Your task to perform on an android device: turn off javascript in the chrome app Image 0: 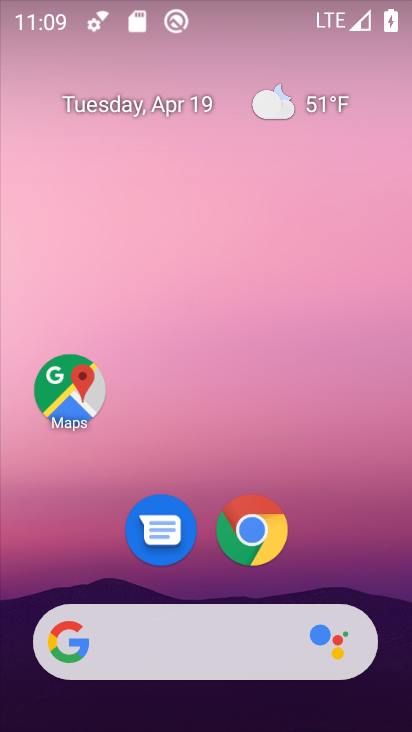
Step 0: drag from (147, 631) to (283, 117)
Your task to perform on an android device: turn off javascript in the chrome app Image 1: 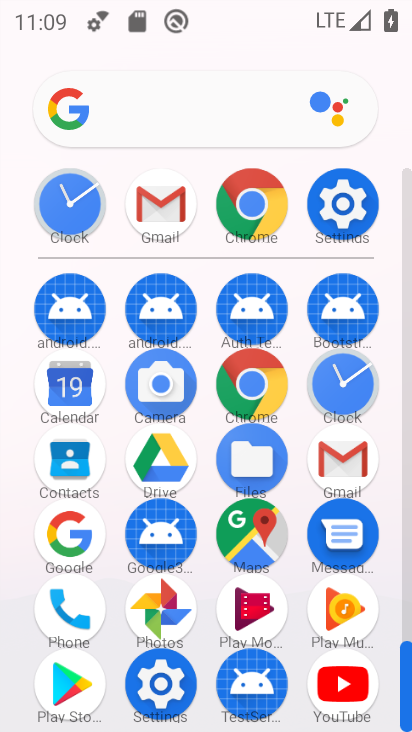
Step 1: click (249, 201)
Your task to perform on an android device: turn off javascript in the chrome app Image 2: 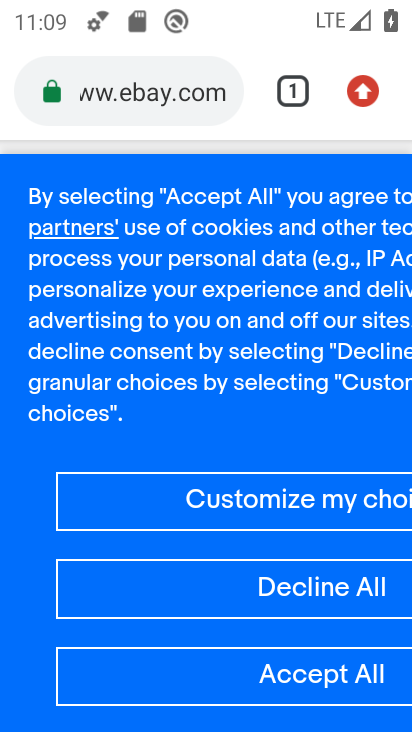
Step 2: click (373, 107)
Your task to perform on an android device: turn off javascript in the chrome app Image 3: 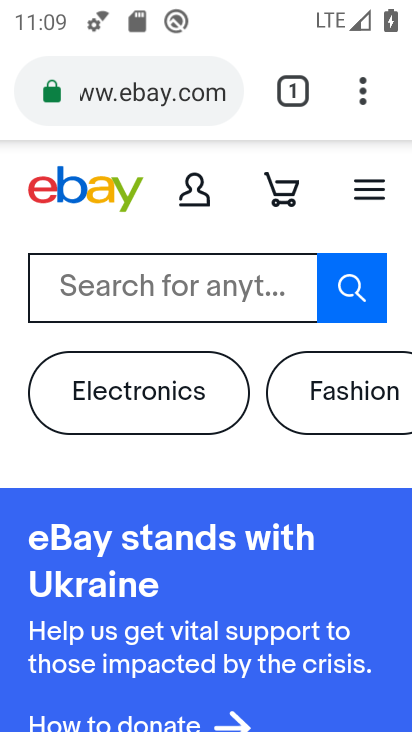
Step 3: click (361, 94)
Your task to perform on an android device: turn off javascript in the chrome app Image 4: 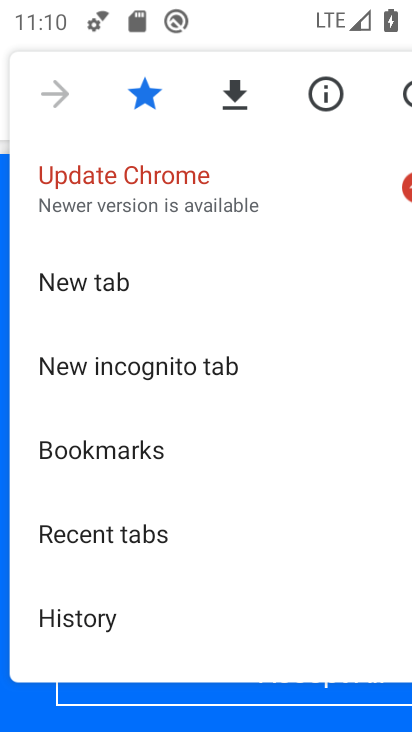
Step 4: drag from (141, 571) to (347, 54)
Your task to perform on an android device: turn off javascript in the chrome app Image 5: 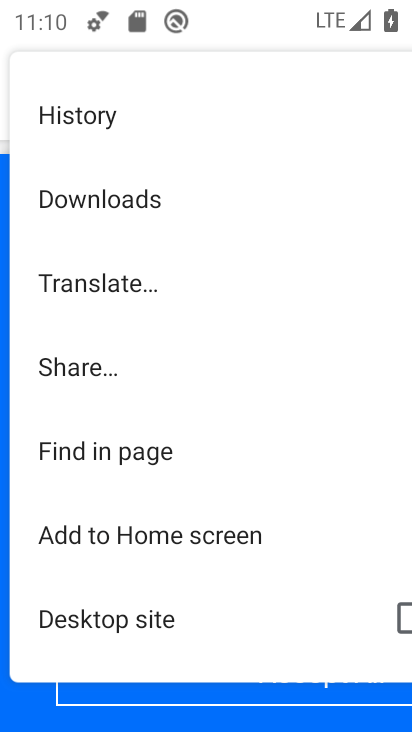
Step 5: drag from (193, 565) to (340, 152)
Your task to perform on an android device: turn off javascript in the chrome app Image 6: 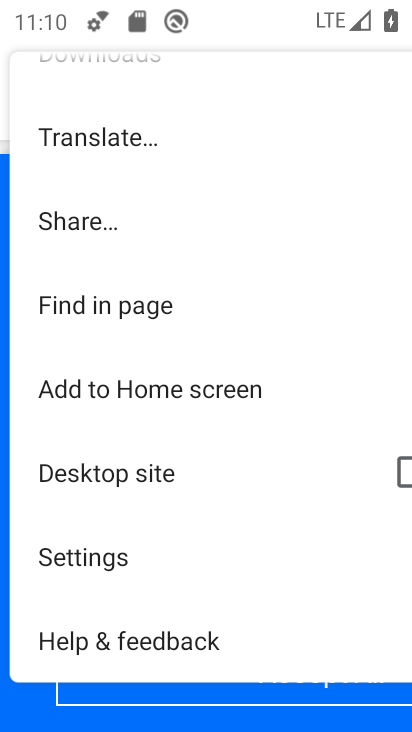
Step 6: click (116, 547)
Your task to perform on an android device: turn off javascript in the chrome app Image 7: 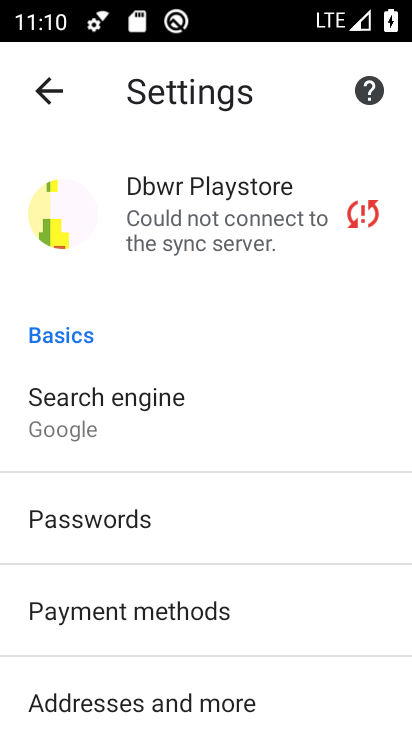
Step 7: drag from (192, 577) to (368, 54)
Your task to perform on an android device: turn off javascript in the chrome app Image 8: 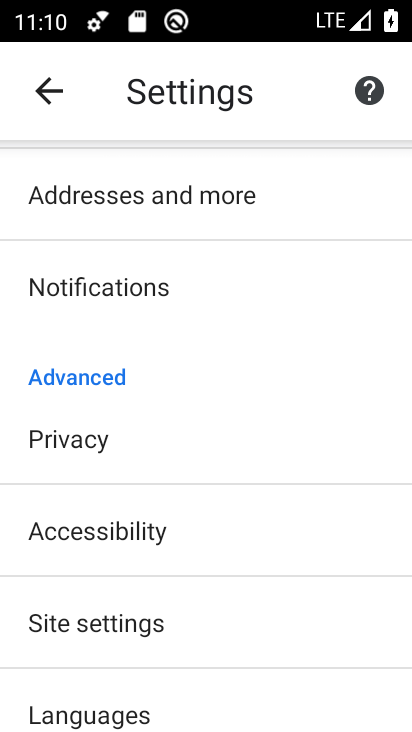
Step 8: drag from (223, 577) to (312, 252)
Your task to perform on an android device: turn off javascript in the chrome app Image 9: 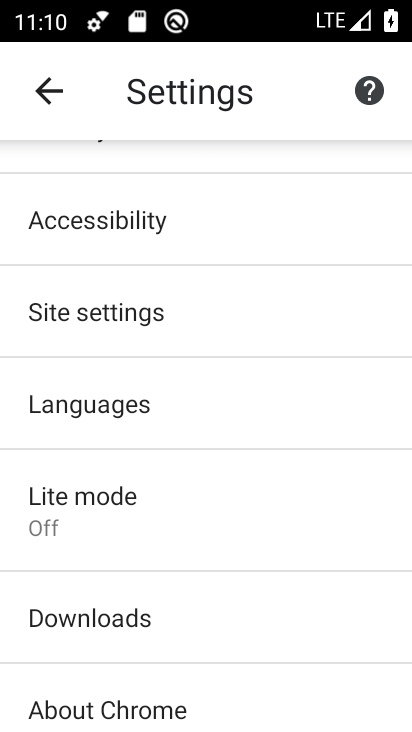
Step 9: click (128, 310)
Your task to perform on an android device: turn off javascript in the chrome app Image 10: 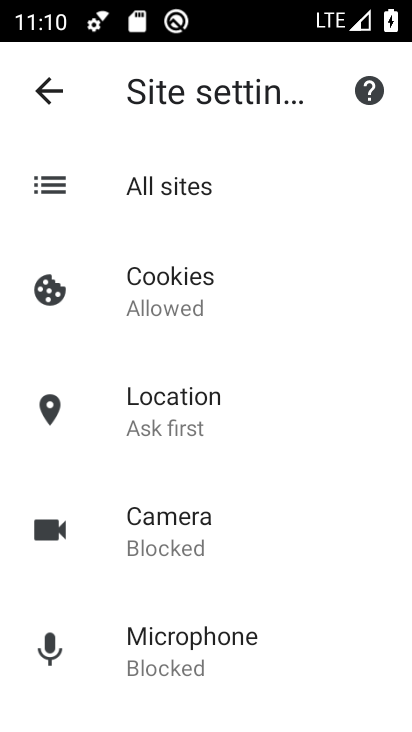
Step 10: drag from (202, 593) to (345, 188)
Your task to perform on an android device: turn off javascript in the chrome app Image 11: 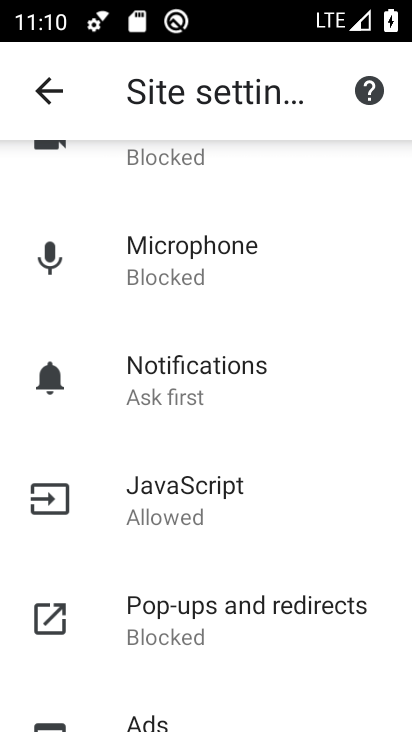
Step 11: click (219, 484)
Your task to perform on an android device: turn off javascript in the chrome app Image 12: 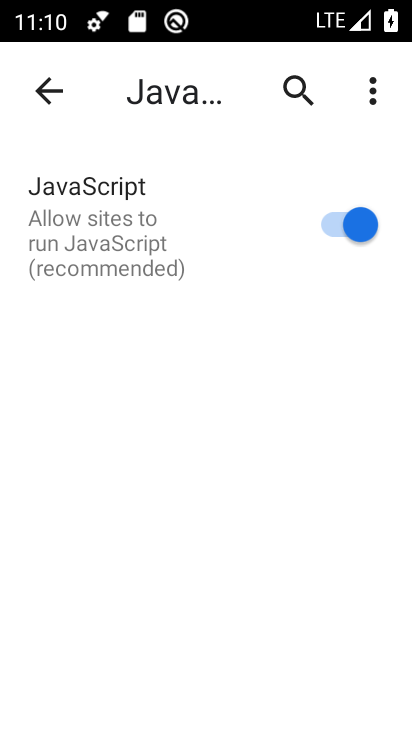
Step 12: click (335, 221)
Your task to perform on an android device: turn off javascript in the chrome app Image 13: 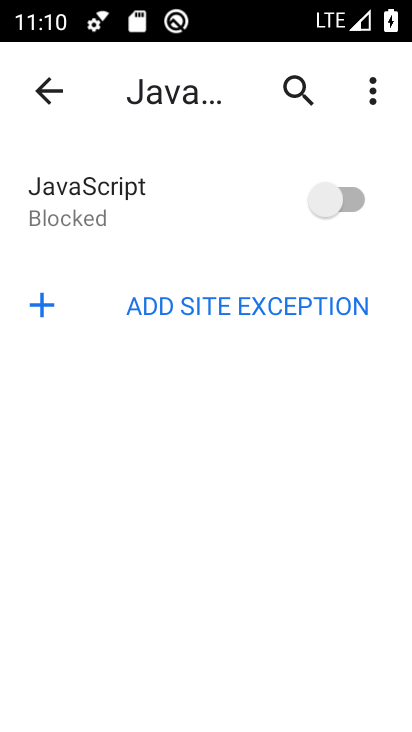
Step 13: task complete